Your task to perform on an android device: open the mobile data screen to see how much data has been used Image 0: 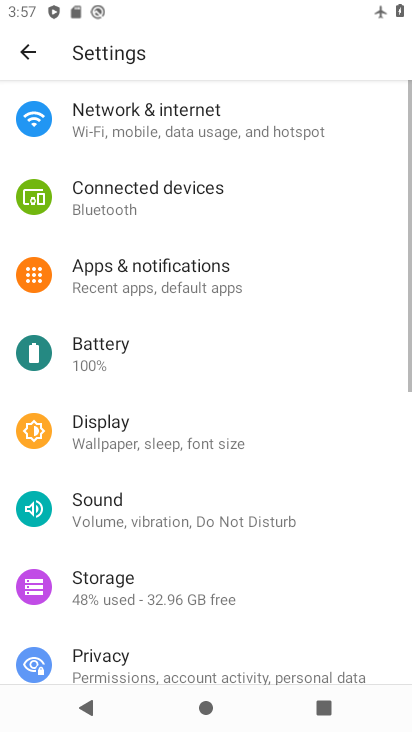
Step 0: press home button
Your task to perform on an android device: open the mobile data screen to see how much data has been used Image 1: 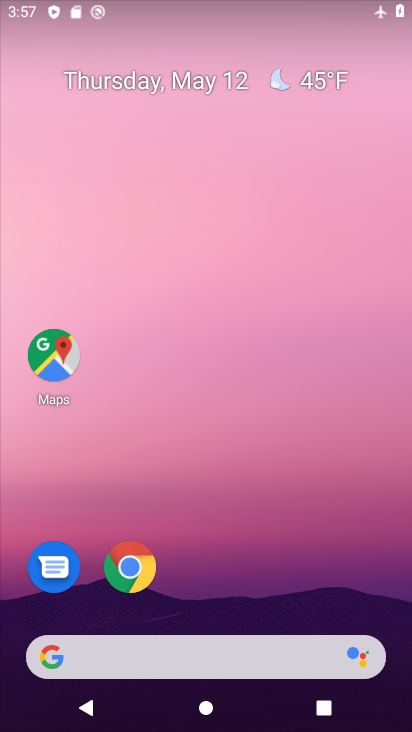
Step 1: drag from (214, 595) to (219, 188)
Your task to perform on an android device: open the mobile data screen to see how much data has been used Image 2: 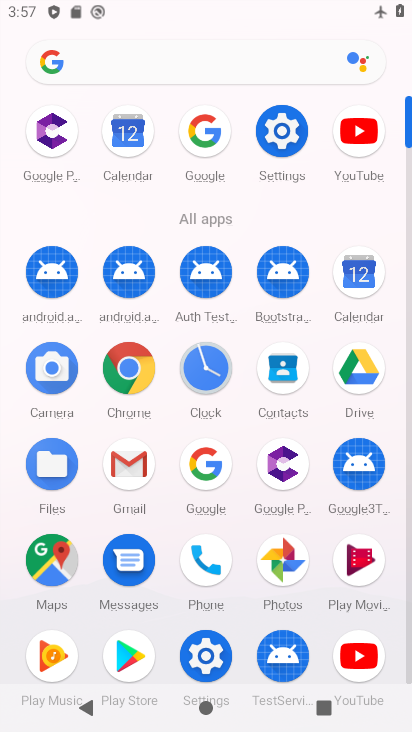
Step 2: click (307, 131)
Your task to perform on an android device: open the mobile data screen to see how much data has been used Image 3: 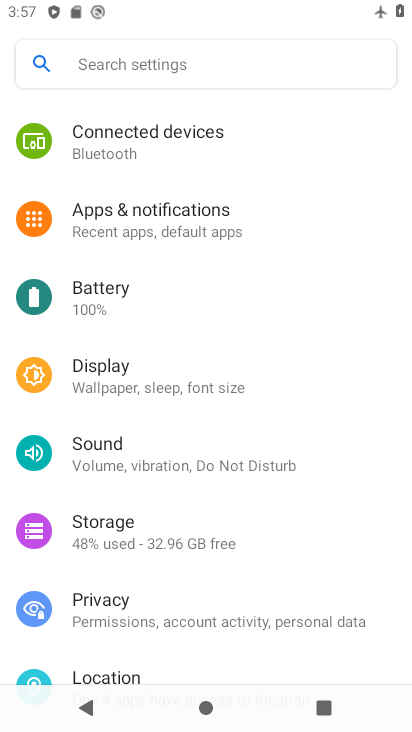
Step 3: drag from (218, 191) to (218, 507)
Your task to perform on an android device: open the mobile data screen to see how much data has been used Image 4: 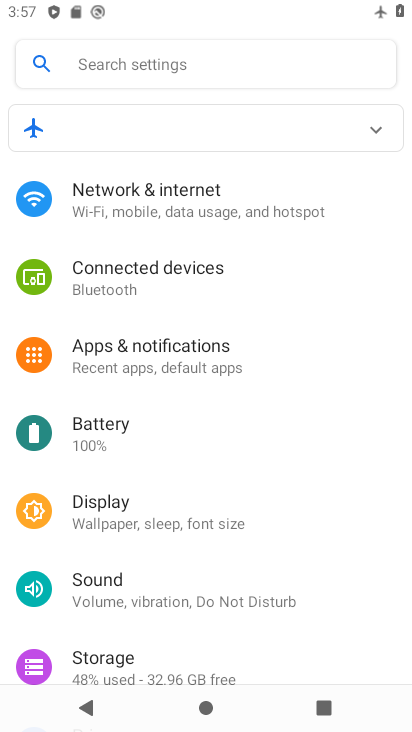
Step 4: click (159, 216)
Your task to perform on an android device: open the mobile data screen to see how much data has been used Image 5: 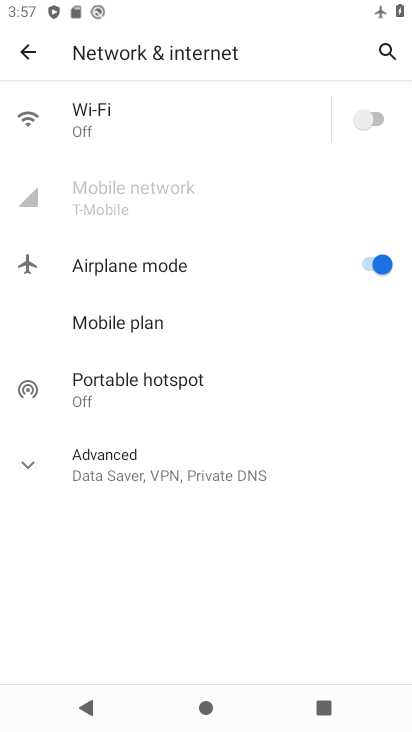
Step 5: click (145, 201)
Your task to perform on an android device: open the mobile data screen to see how much data has been used Image 6: 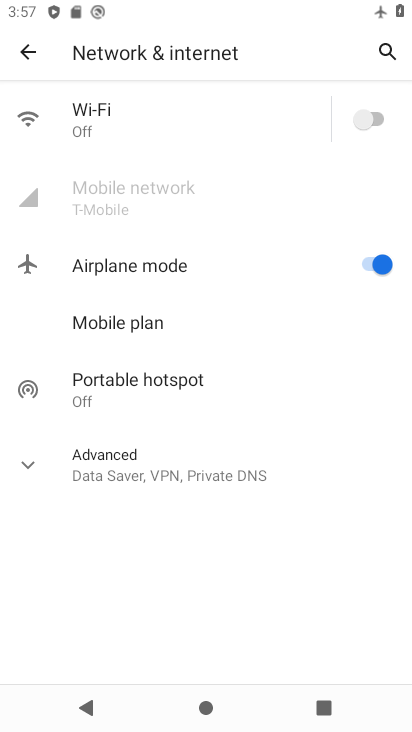
Step 6: task complete